Your task to perform on an android device: Do I have any events this weekend? Image 0: 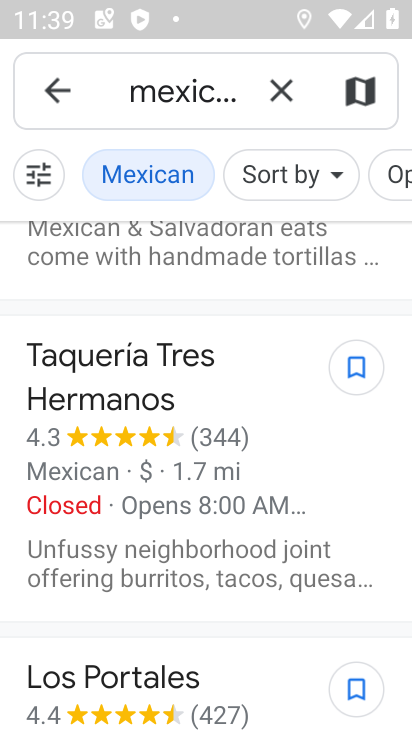
Step 0: press home button
Your task to perform on an android device: Do I have any events this weekend? Image 1: 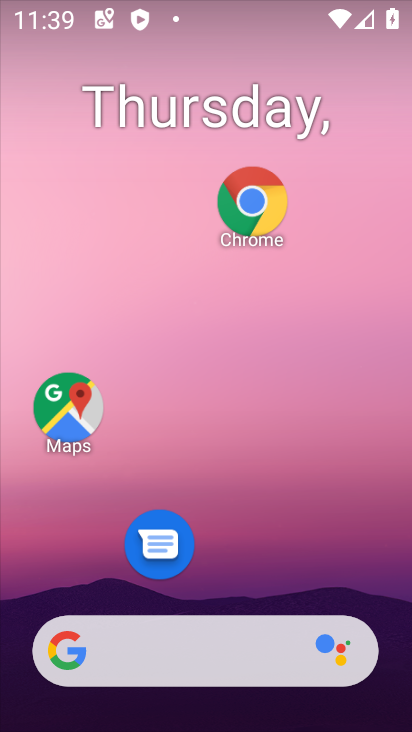
Step 1: drag from (215, 584) to (249, 11)
Your task to perform on an android device: Do I have any events this weekend? Image 2: 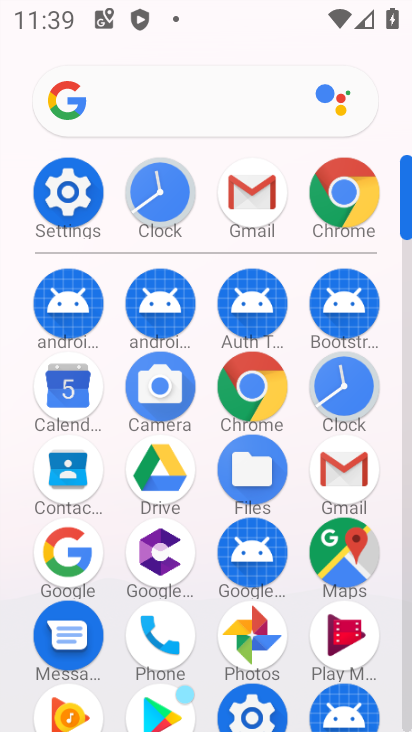
Step 2: click (68, 381)
Your task to perform on an android device: Do I have any events this weekend? Image 3: 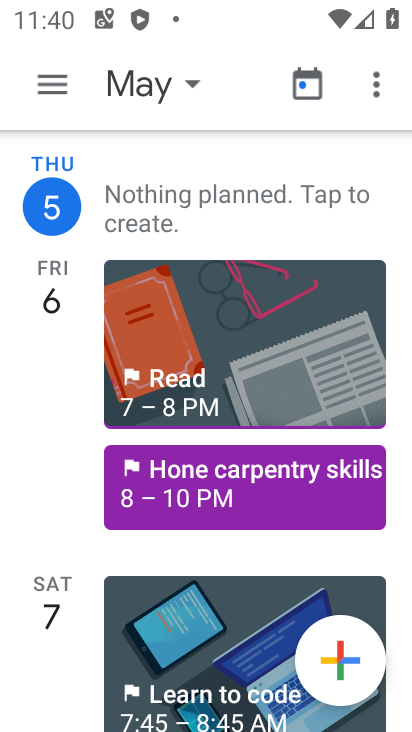
Step 3: click (46, 85)
Your task to perform on an android device: Do I have any events this weekend? Image 4: 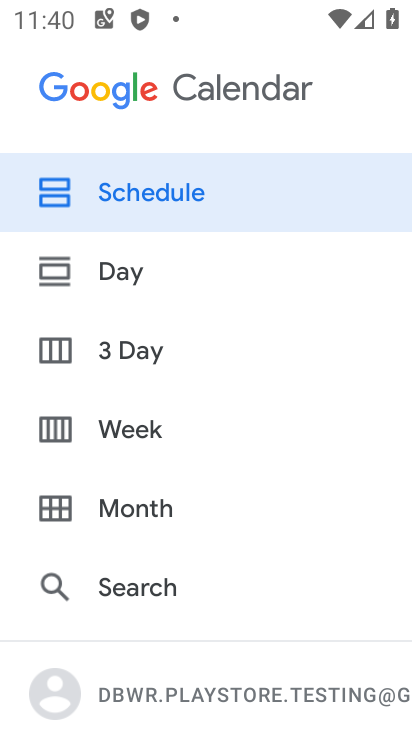
Step 4: click (98, 426)
Your task to perform on an android device: Do I have any events this weekend? Image 5: 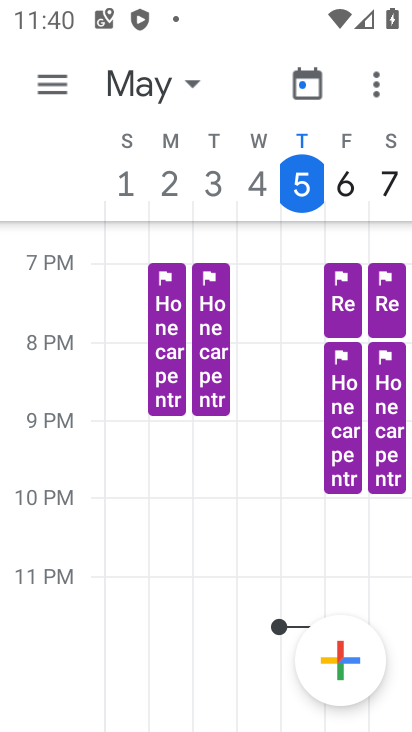
Step 5: click (297, 184)
Your task to perform on an android device: Do I have any events this weekend? Image 6: 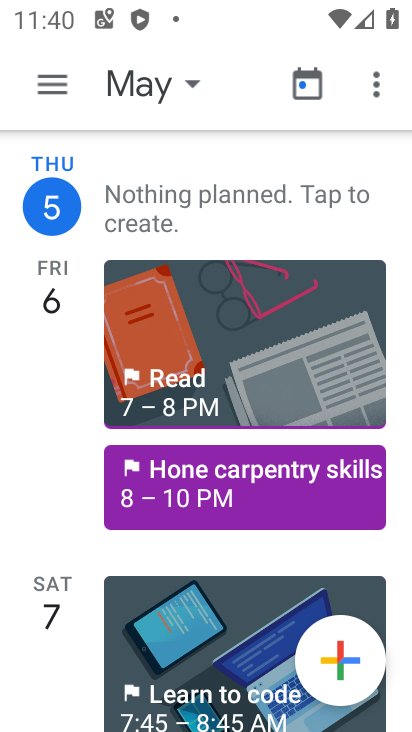
Step 6: task complete